Your task to perform on an android device: turn smart compose on in the gmail app Image 0: 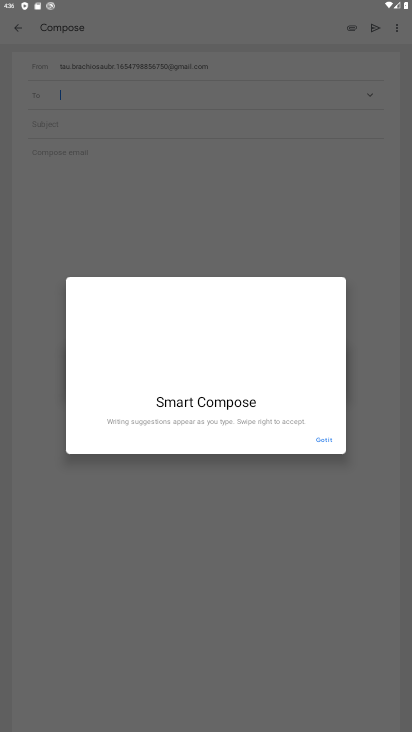
Step 0: press home button
Your task to perform on an android device: turn smart compose on in the gmail app Image 1: 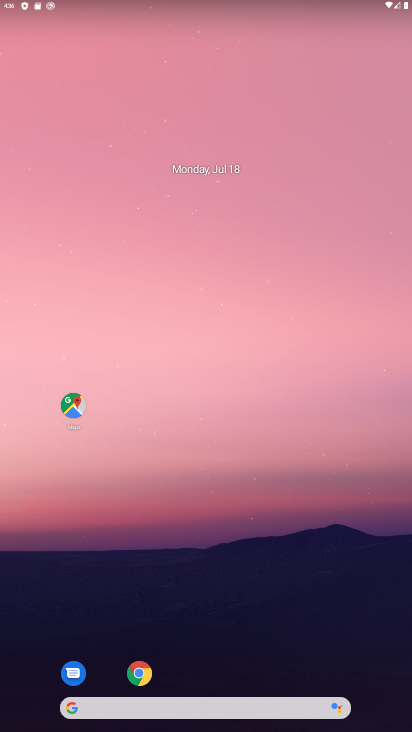
Step 1: drag from (260, 666) to (280, 136)
Your task to perform on an android device: turn smart compose on in the gmail app Image 2: 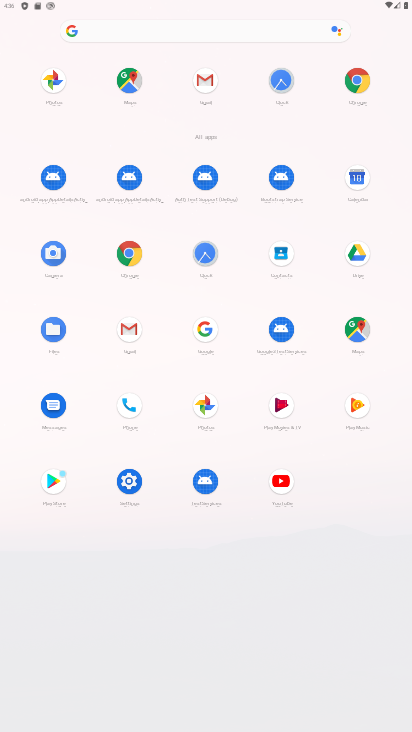
Step 2: click (127, 339)
Your task to perform on an android device: turn smart compose on in the gmail app Image 3: 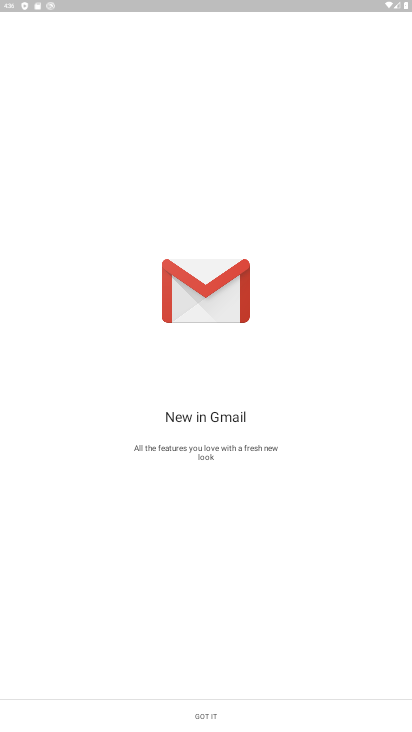
Step 3: click (186, 719)
Your task to perform on an android device: turn smart compose on in the gmail app Image 4: 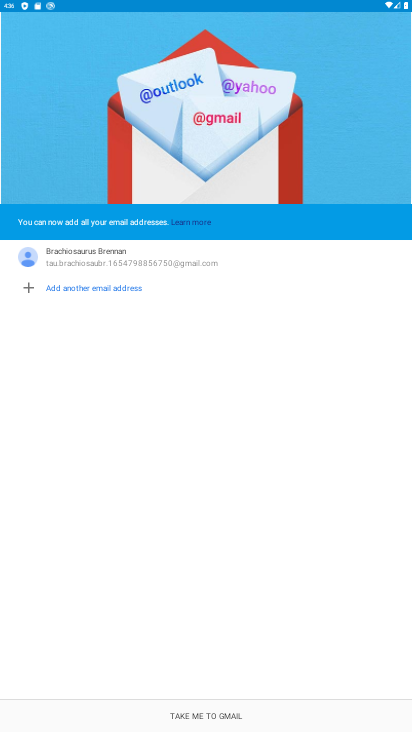
Step 4: click (227, 721)
Your task to perform on an android device: turn smart compose on in the gmail app Image 5: 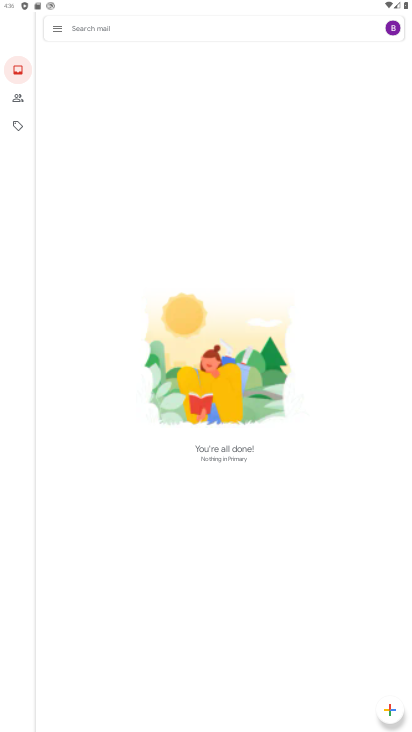
Step 5: click (69, 24)
Your task to perform on an android device: turn smart compose on in the gmail app Image 6: 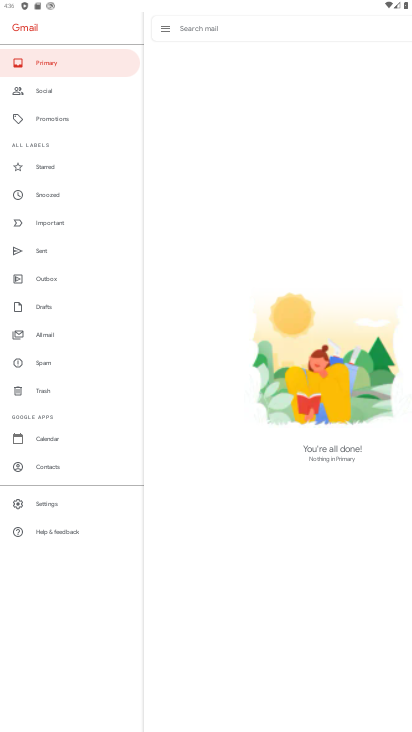
Step 6: click (48, 502)
Your task to perform on an android device: turn smart compose on in the gmail app Image 7: 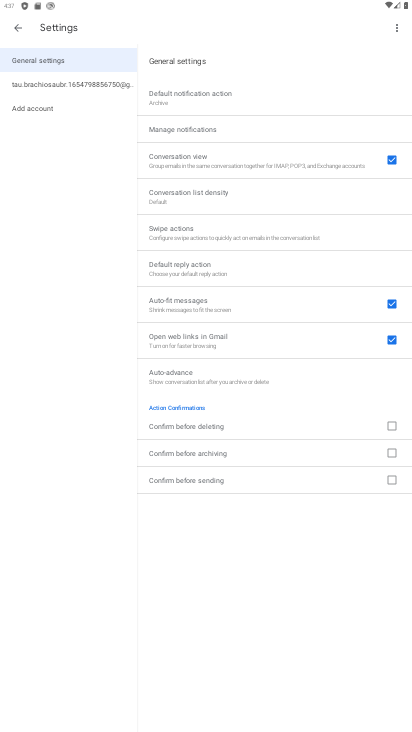
Step 7: click (81, 90)
Your task to perform on an android device: turn smart compose on in the gmail app Image 8: 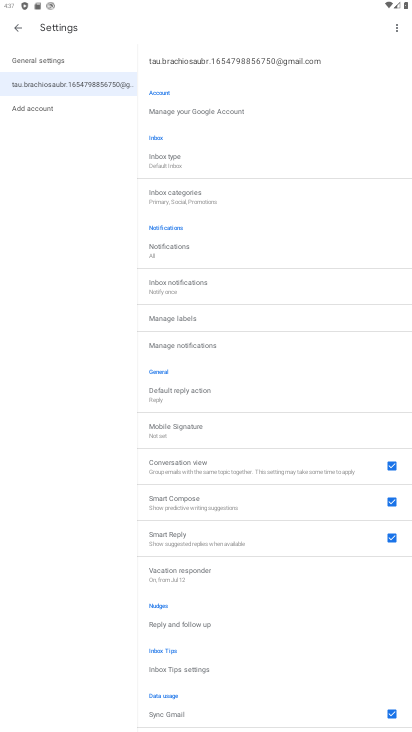
Step 8: task complete